Your task to perform on an android device: Add "razer nari" to the cart on bestbuy, then select checkout. Image 0: 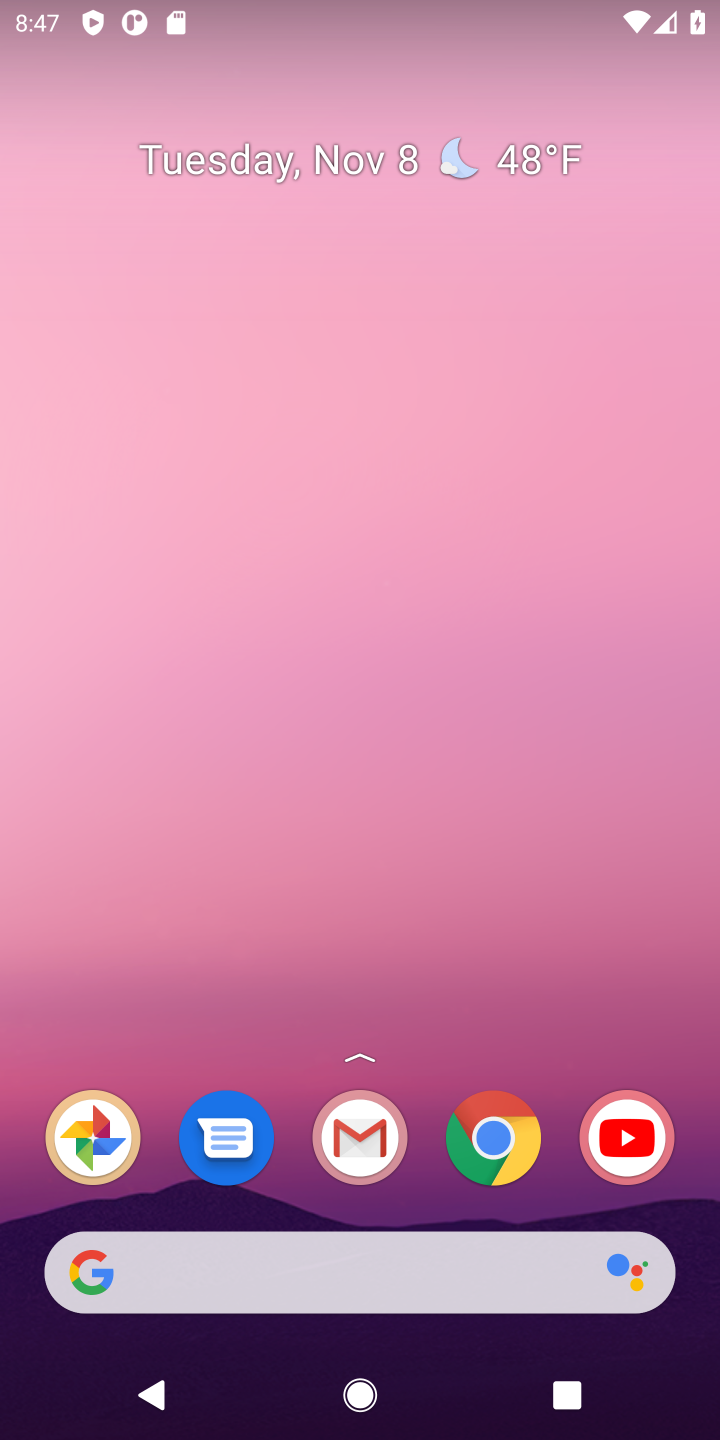
Step 0: click (497, 1150)
Your task to perform on an android device: Add "razer nari" to the cart on bestbuy, then select checkout. Image 1: 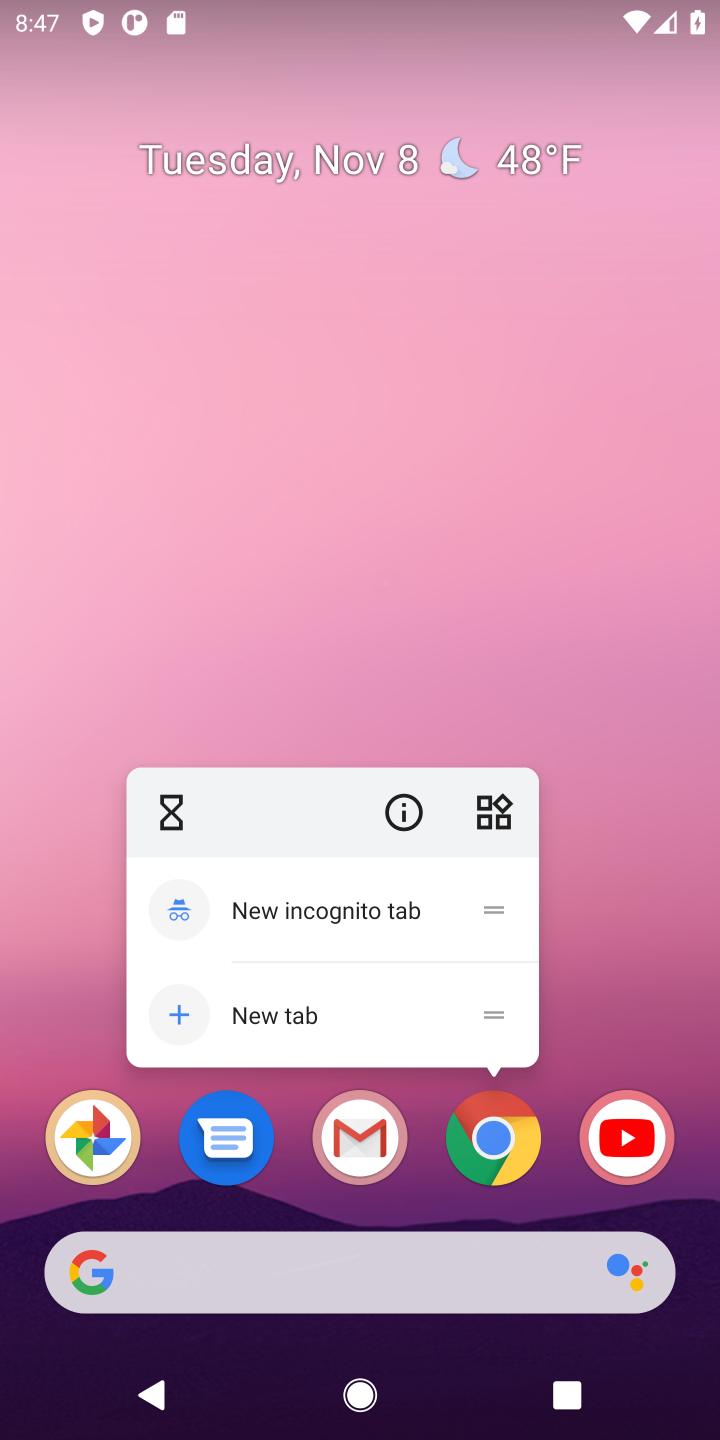
Step 1: click (497, 1152)
Your task to perform on an android device: Add "razer nari" to the cart on bestbuy, then select checkout. Image 2: 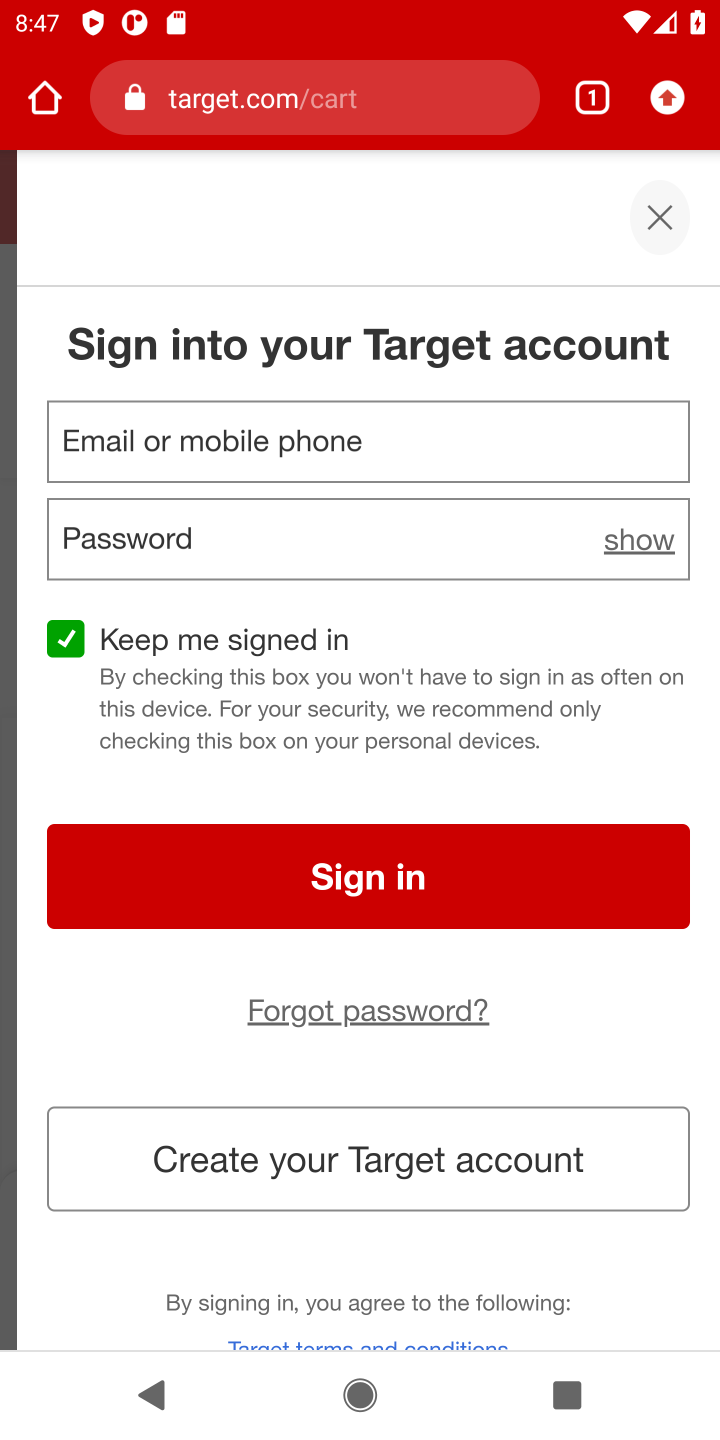
Step 2: click (653, 207)
Your task to perform on an android device: Add "razer nari" to the cart on bestbuy, then select checkout. Image 3: 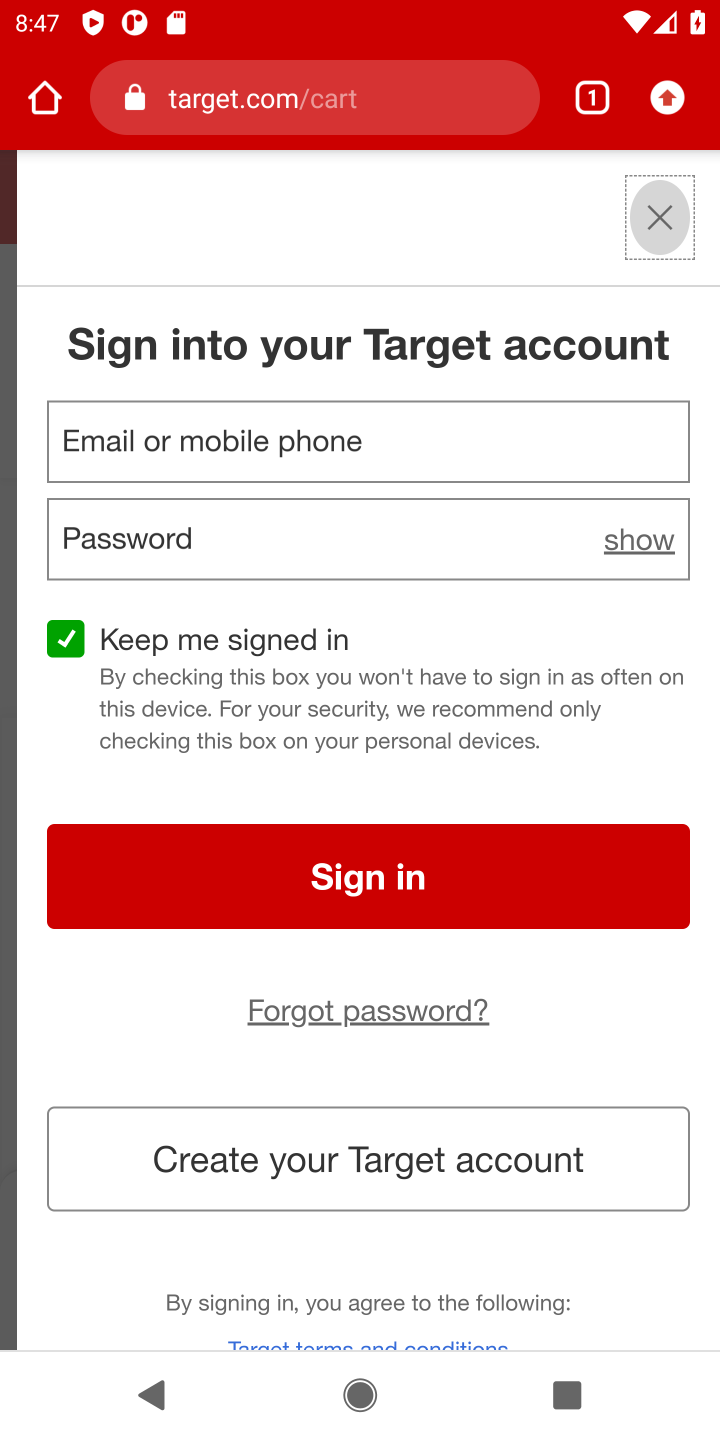
Step 3: click (654, 207)
Your task to perform on an android device: Add "razer nari" to the cart on bestbuy, then select checkout. Image 4: 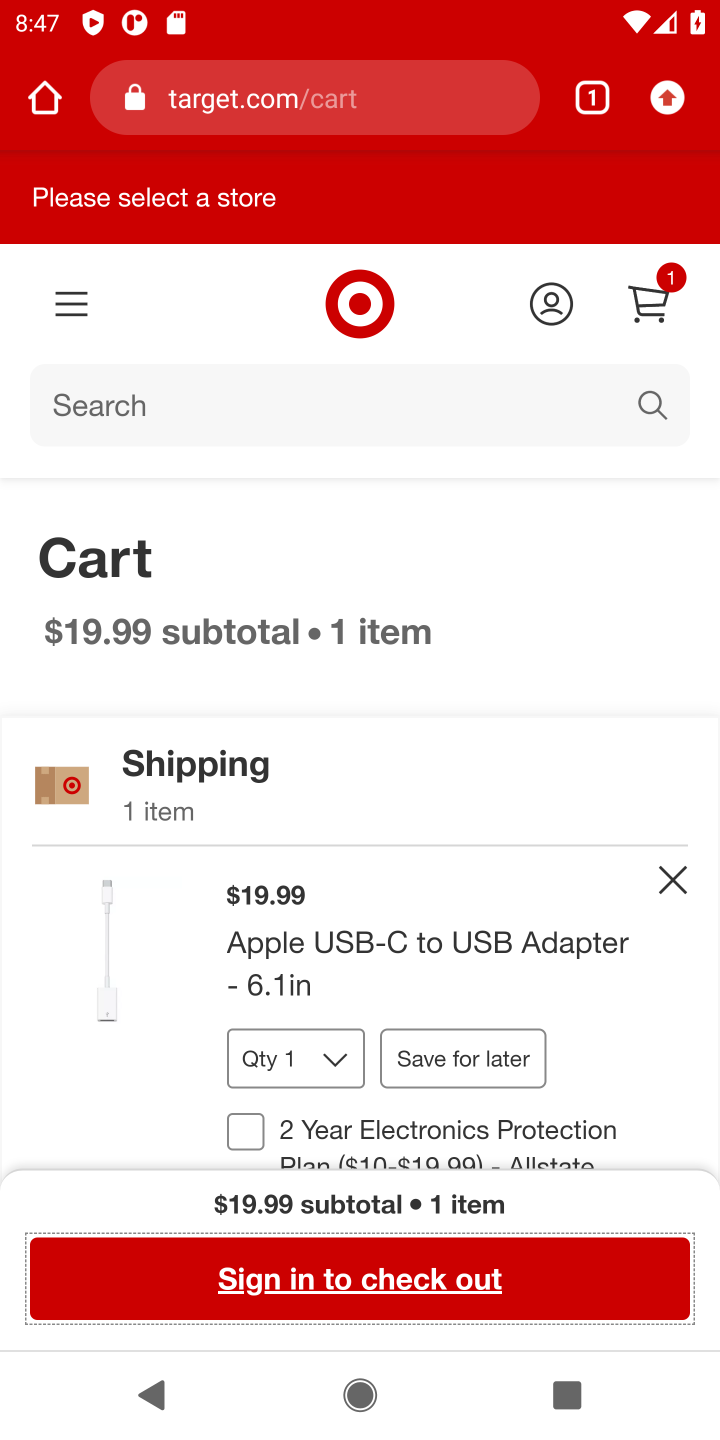
Step 4: click (366, 93)
Your task to perform on an android device: Add "razer nari" to the cart on bestbuy, then select checkout. Image 5: 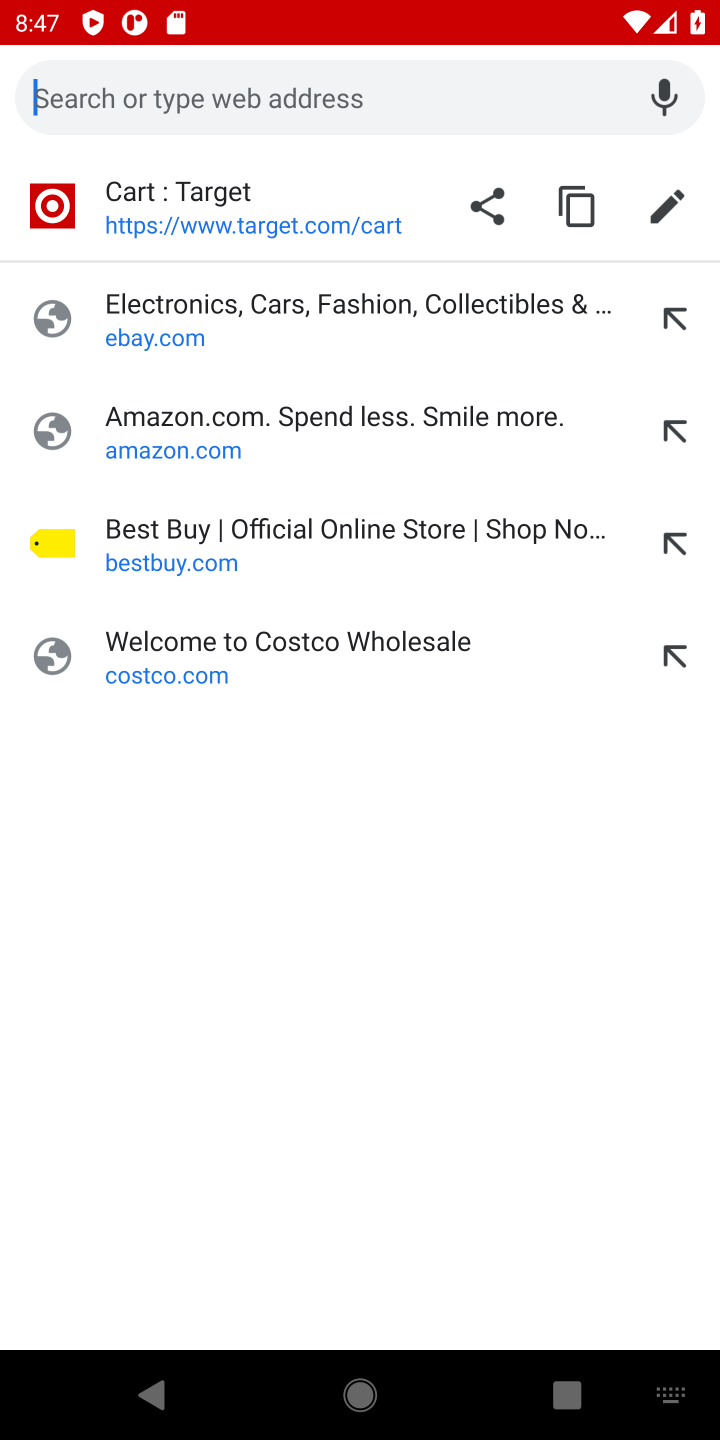
Step 5: click (167, 548)
Your task to perform on an android device: Add "razer nari" to the cart on bestbuy, then select checkout. Image 6: 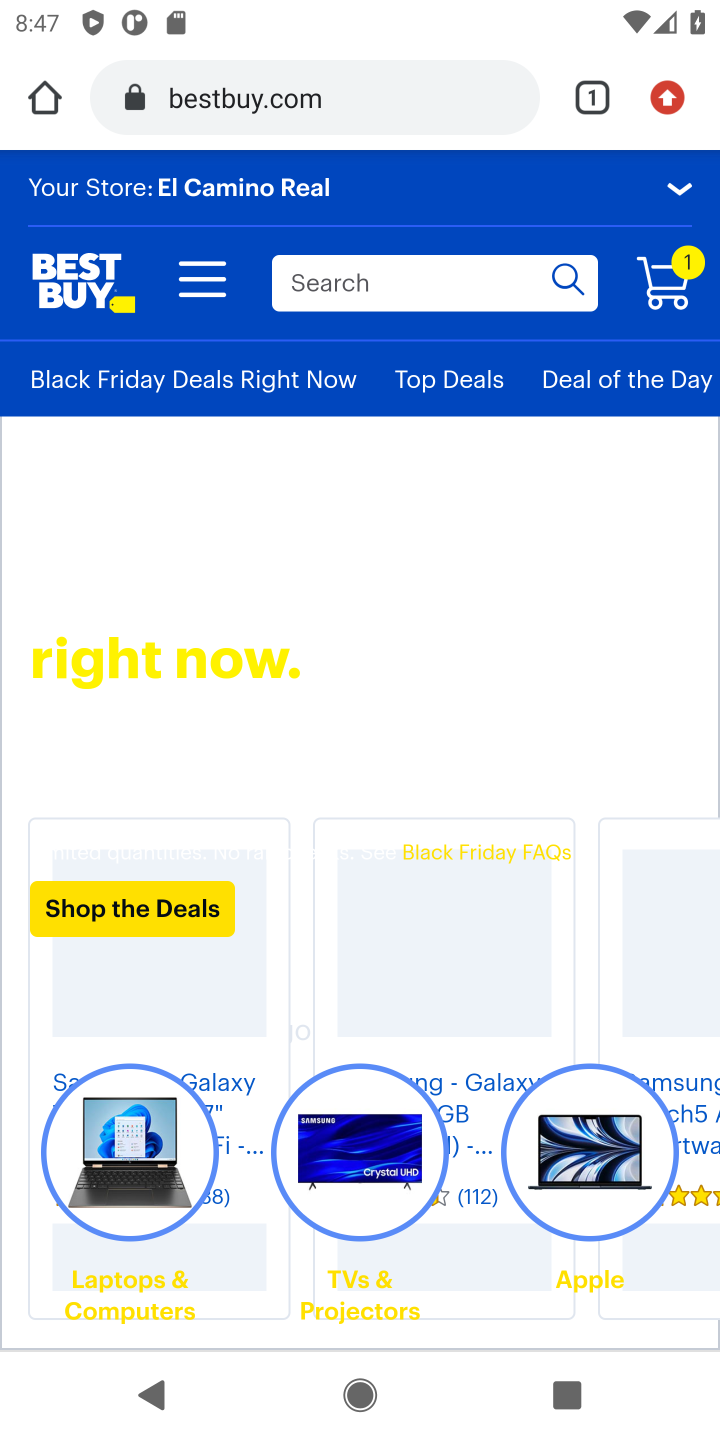
Step 6: click (384, 269)
Your task to perform on an android device: Add "razer nari" to the cart on bestbuy, then select checkout. Image 7: 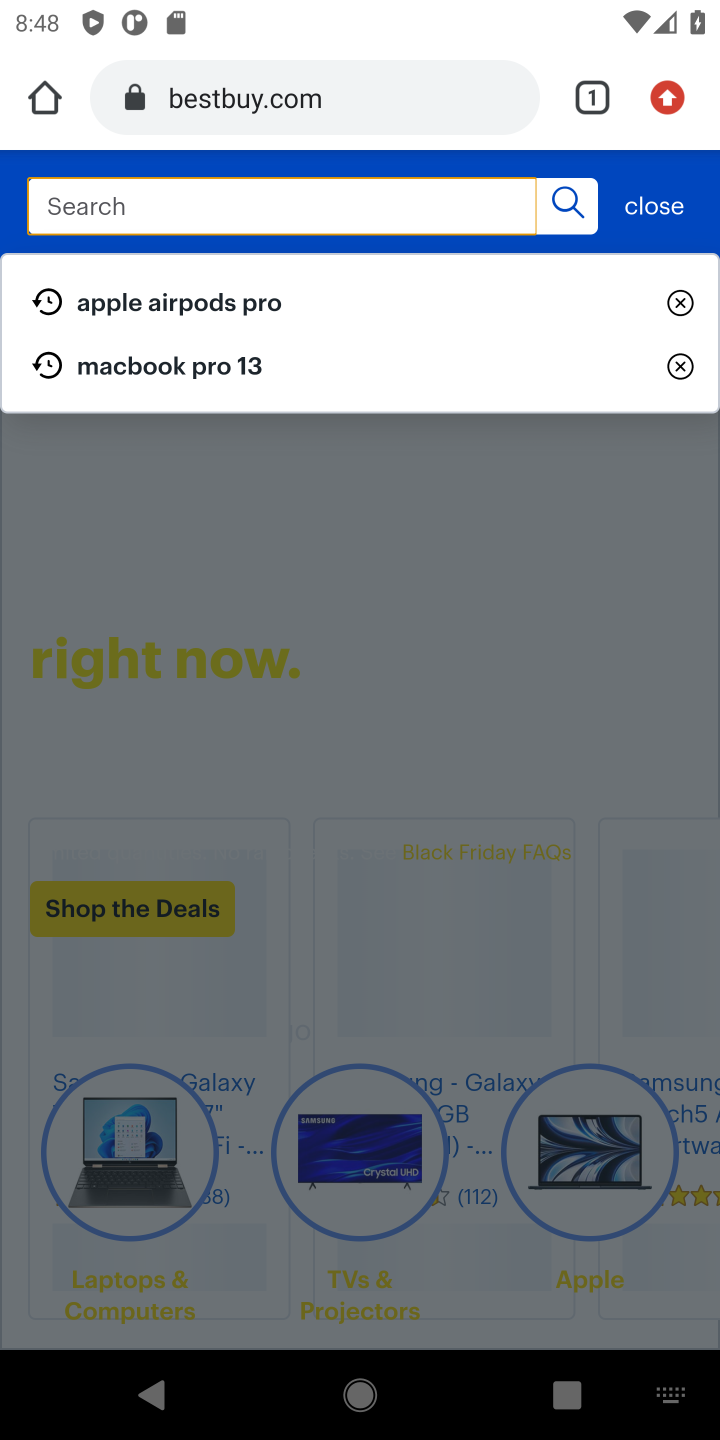
Step 7: type "razer nari"
Your task to perform on an android device: Add "razer nari" to the cart on bestbuy, then select checkout. Image 8: 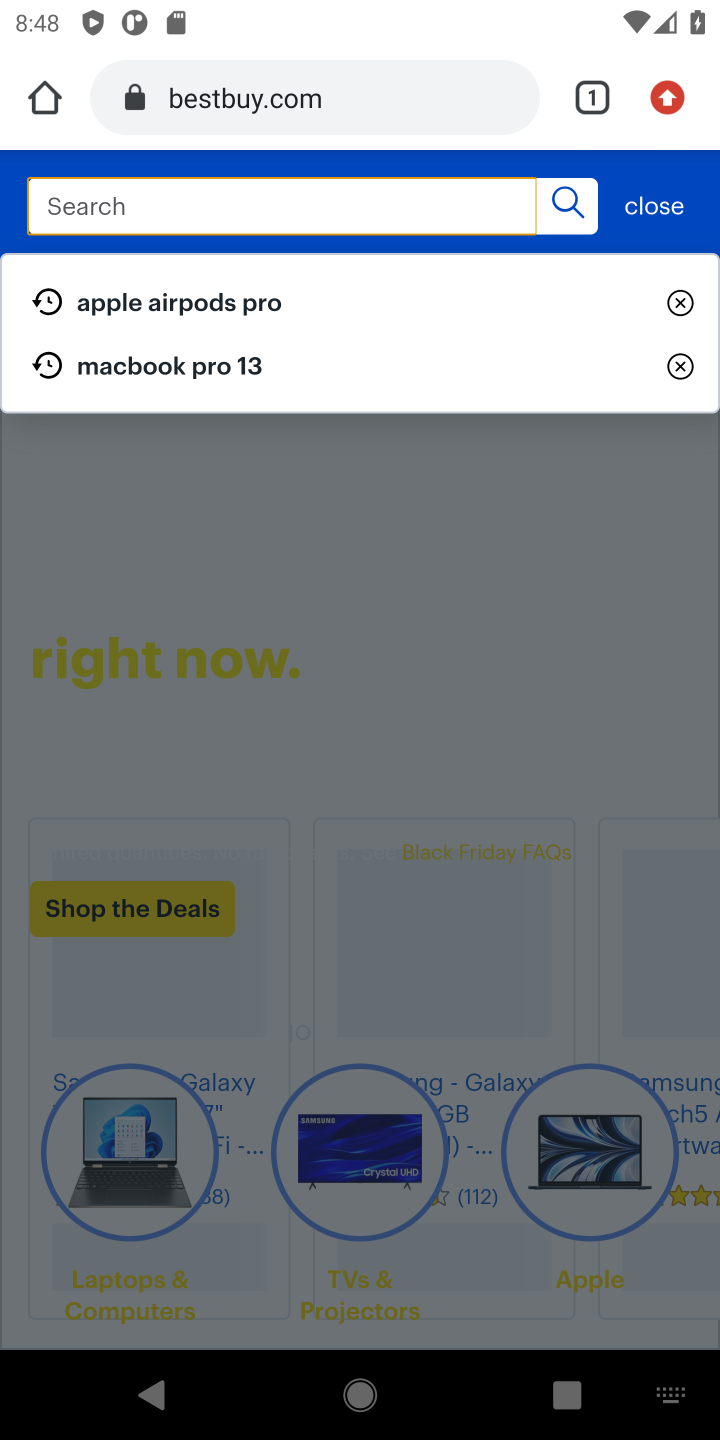
Step 8: press enter
Your task to perform on an android device: Add "razer nari" to the cart on bestbuy, then select checkout. Image 9: 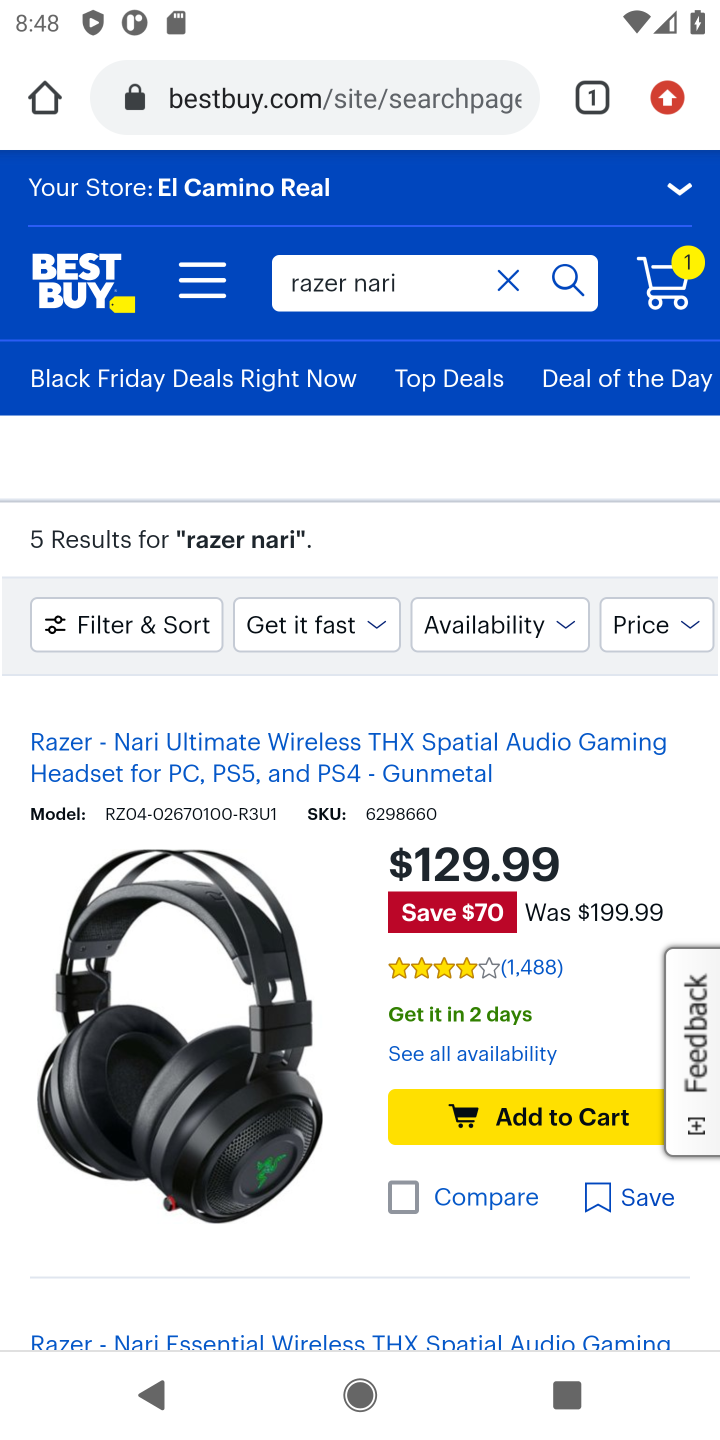
Step 9: click (522, 1097)
Your task to perform on an android device: Add "razer nari" to the cart on bestbuy, then select checkout. Image 10: 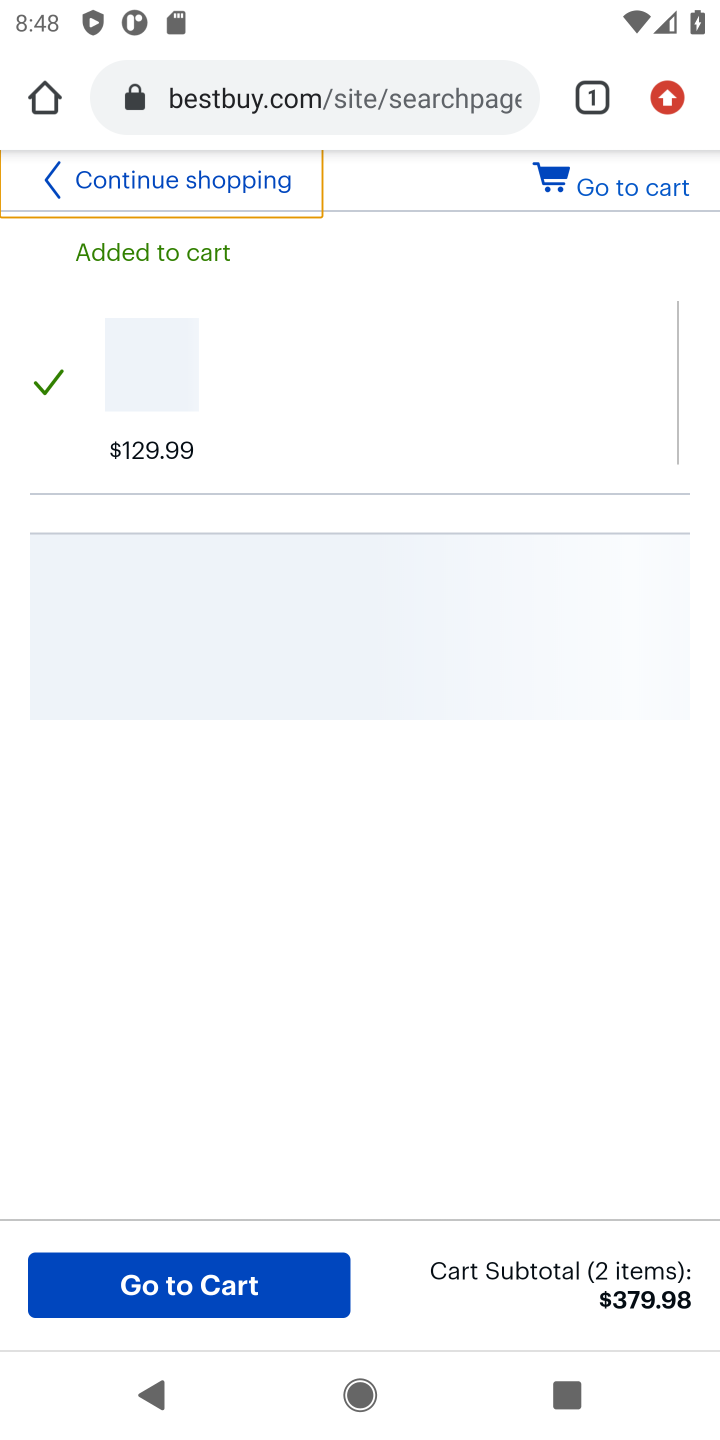
Step 10: click (652, 174)
Your task to perform on an android device: Add "razer nari" to the cart on bestbuy, then select checkout. Image 11: 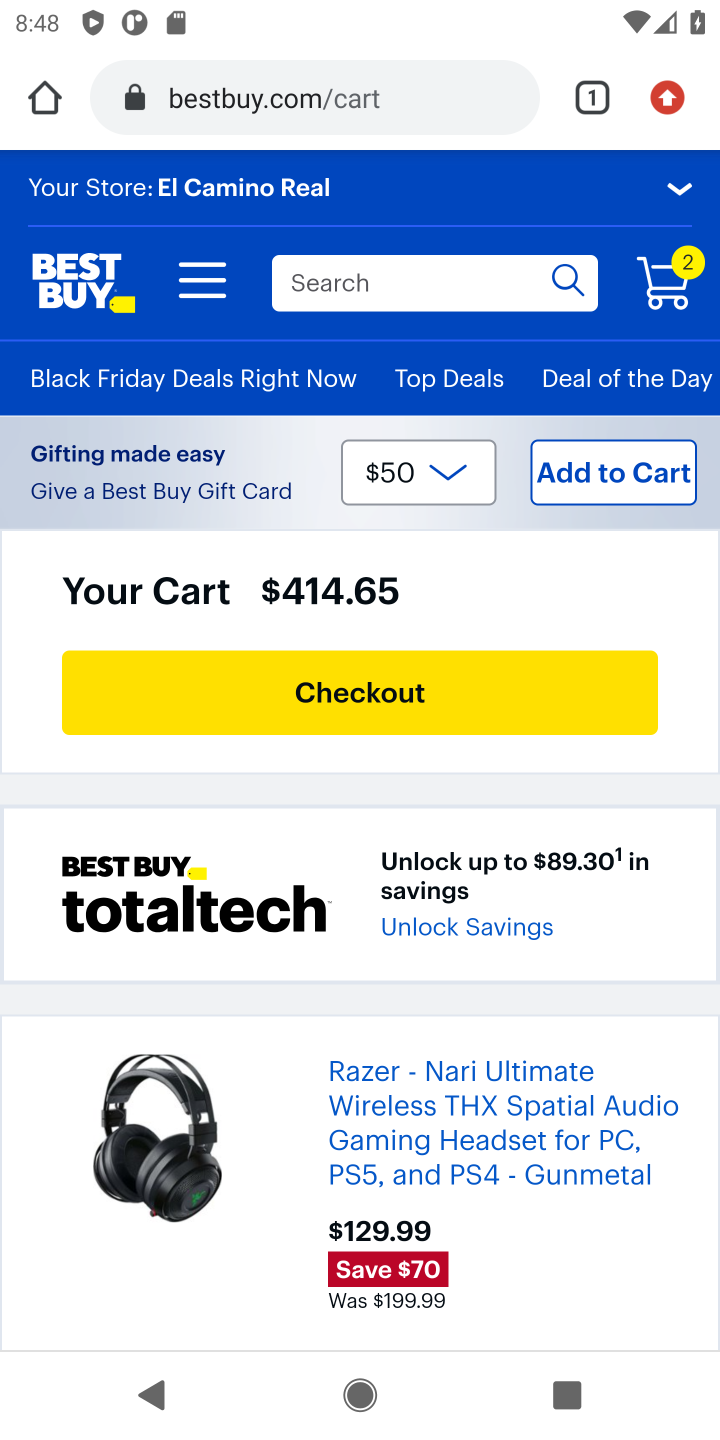
Step 11: drag from (227, 1274) to (626, 227)
Your task to perform on an android device: Add "razer nari" to the cart on bestbuy, then select checkout. Image 12: 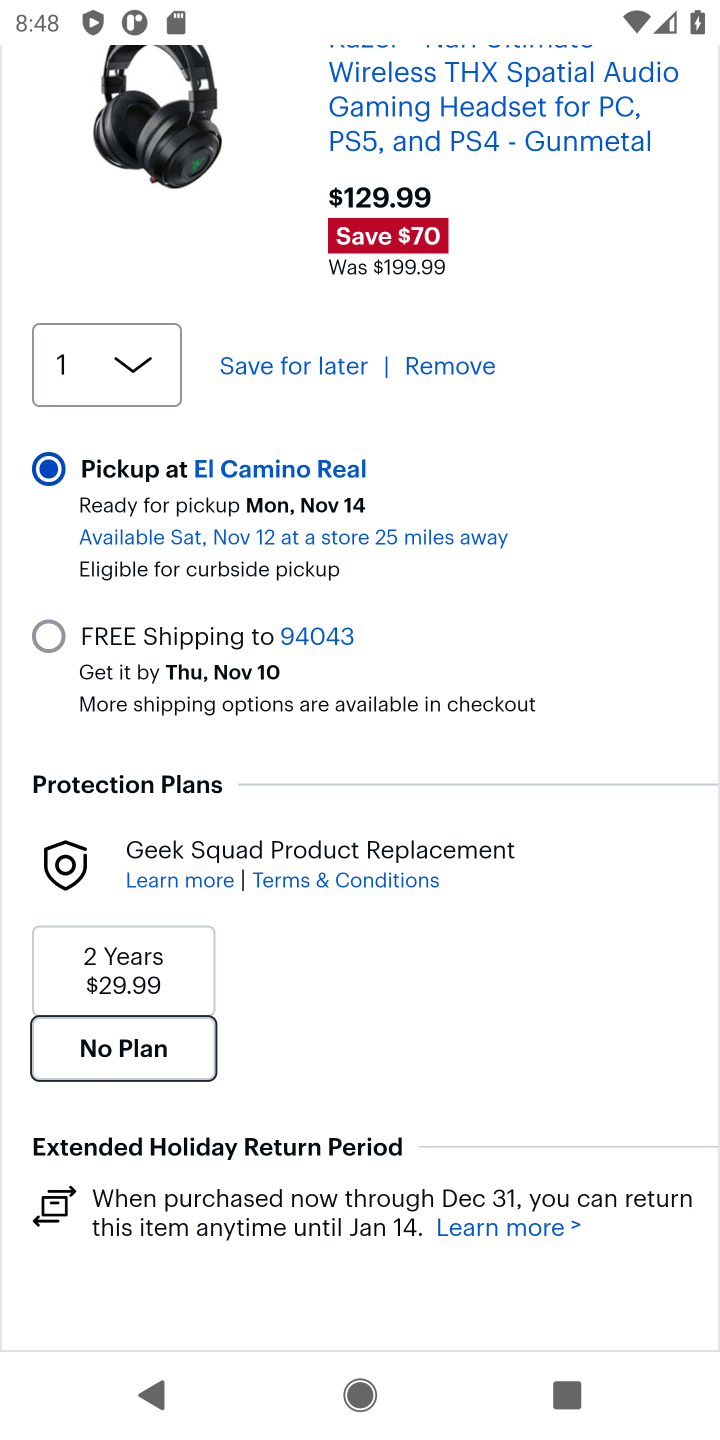
Step 12: drag from (352, 1143) to (485, 657)
Your task to perform on an android device: Add "razer nari" to the cart on bestbuy, then select checkout. Image 13: 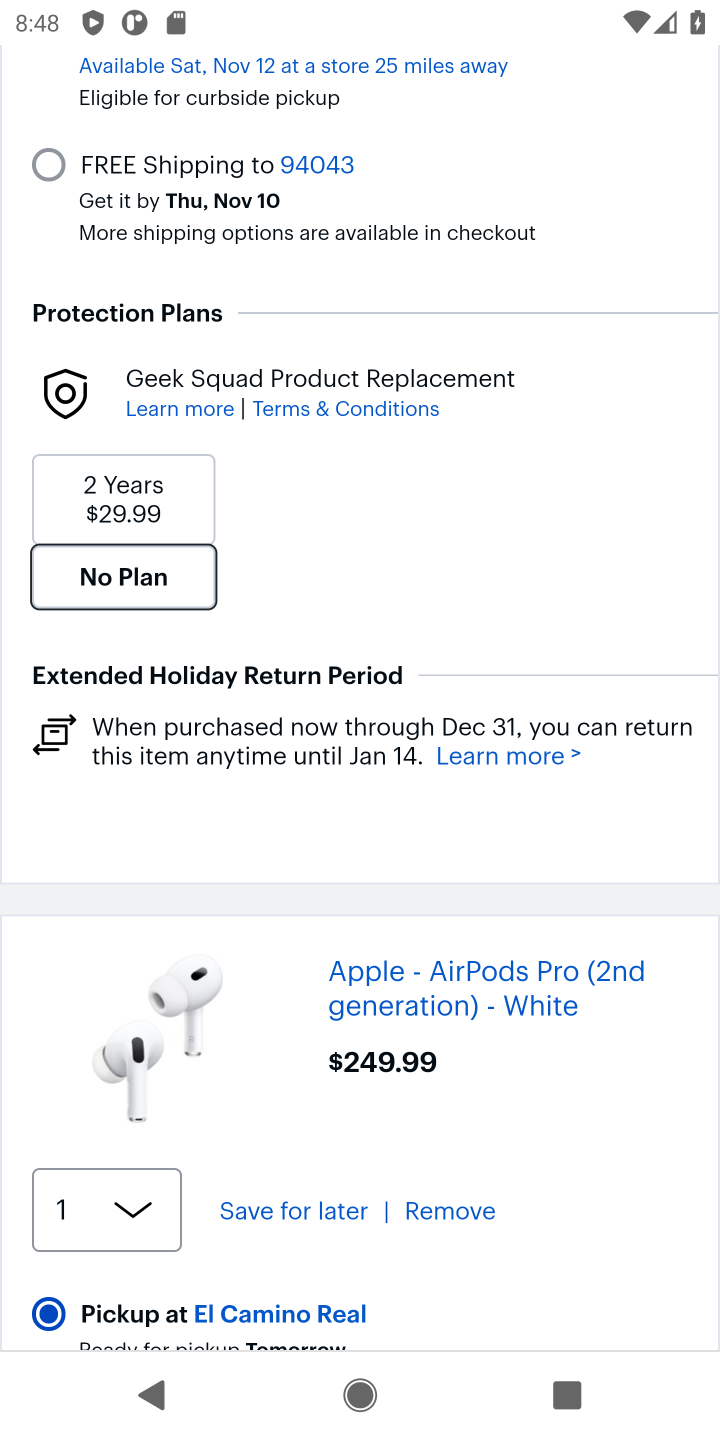
Step 13: click (429, 1209)
Your task to perform on an android device: Add "razer nari" to the cart on bestbuy, then select checkout. Image 14: 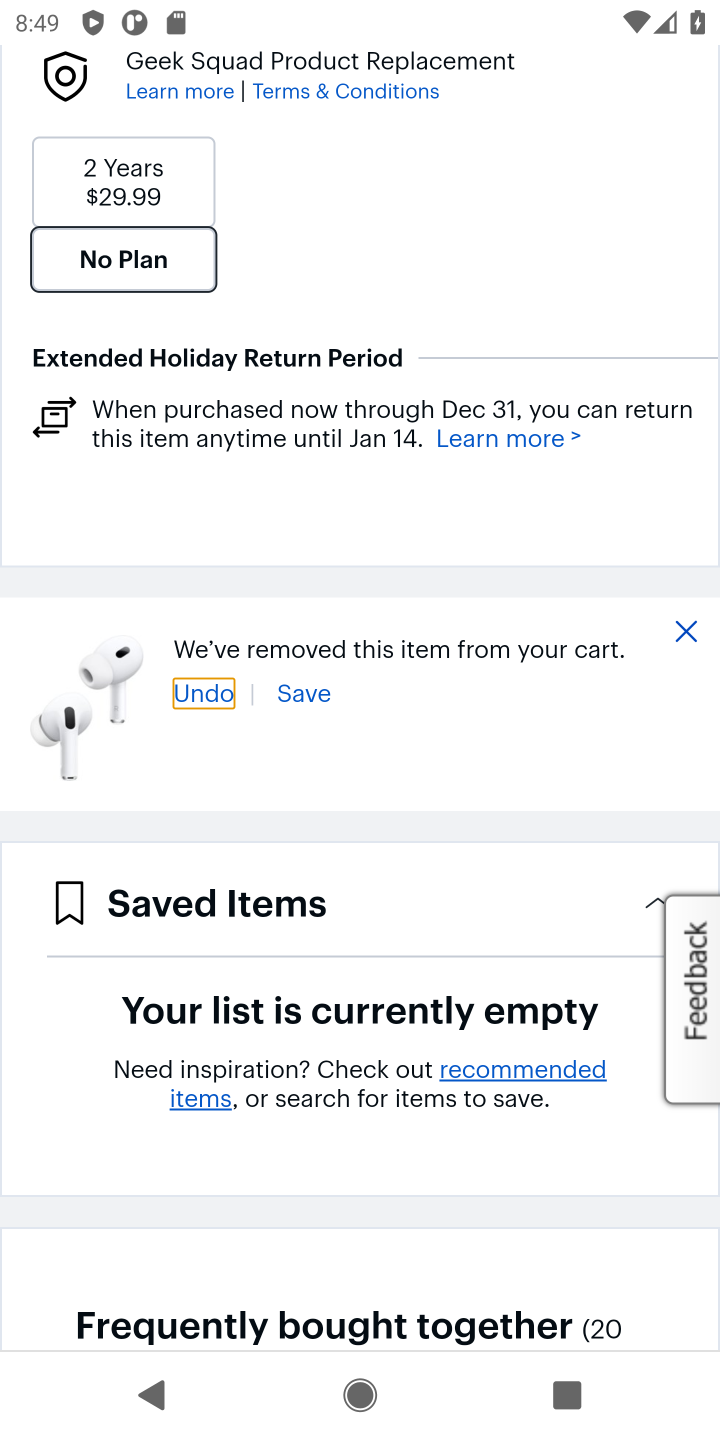
Step 14: drag from (516, 196) to (543, 1162)
Your task to perform on an android device: Add "razer nari" to the cart on bestbuy, then select checkout. Image 15: 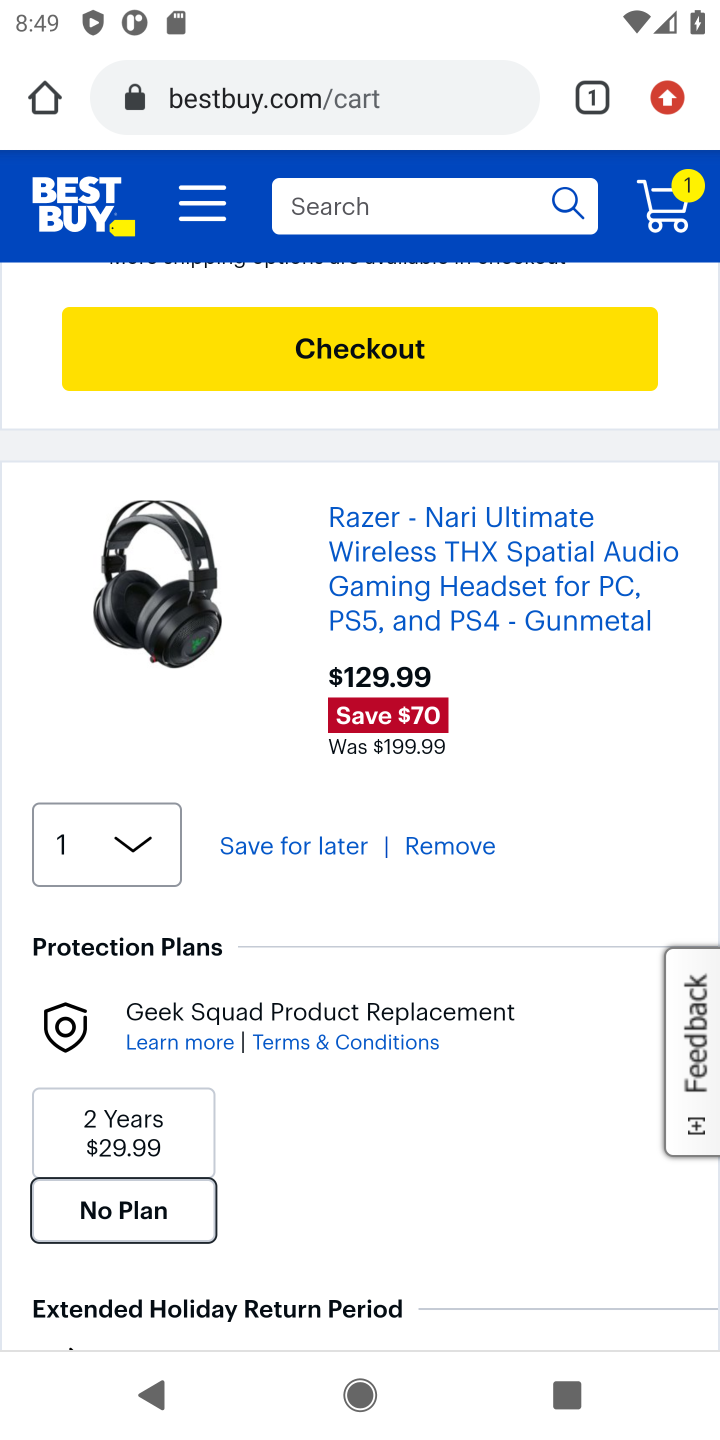
Step 15: drag from (345, 1185) to (494, 861)
Your task to perform on an android device: Add "razer nari" to the cart on bestbuy, then select checkout. Image 16: 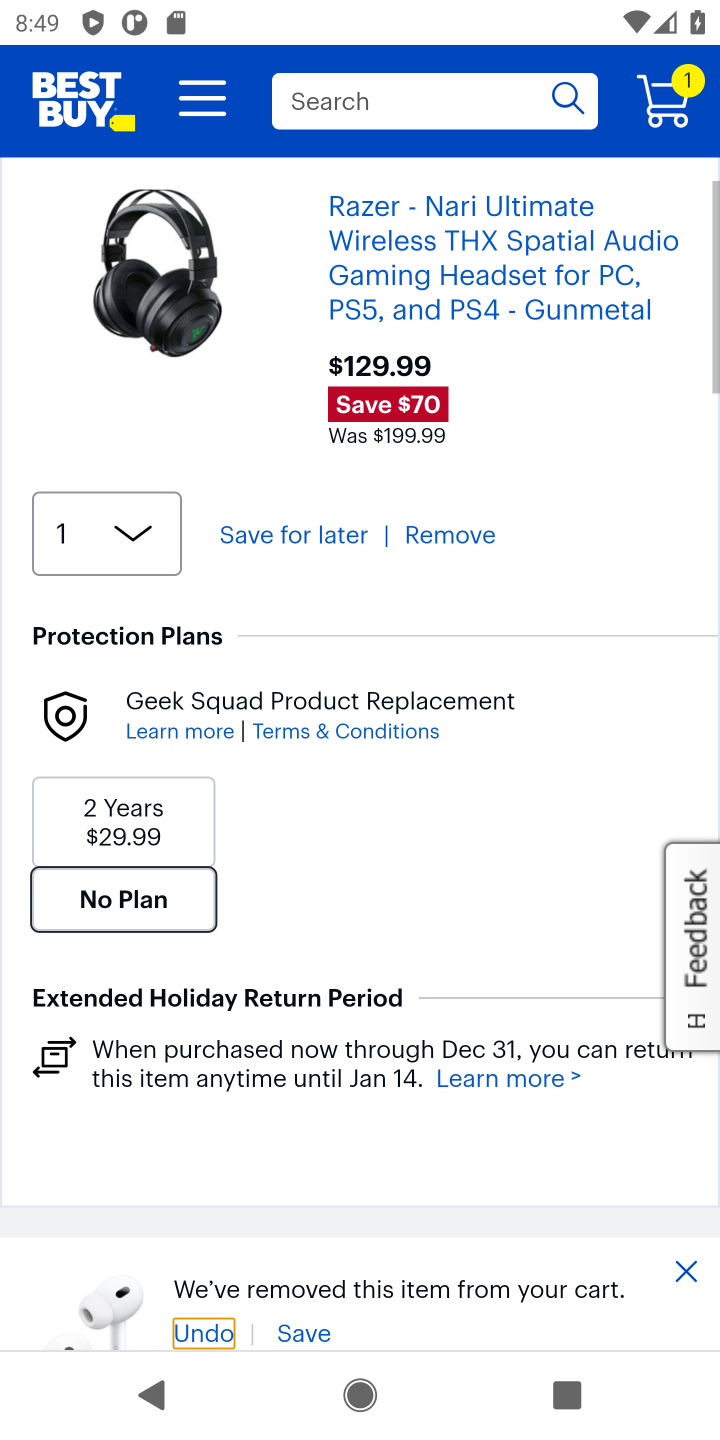
Step 16: drag from (489, 901) to (495, 1128)
Your task to perform on an android device: Add "razer nari" to the cart on bestbuy, then select checkout. Image 17: 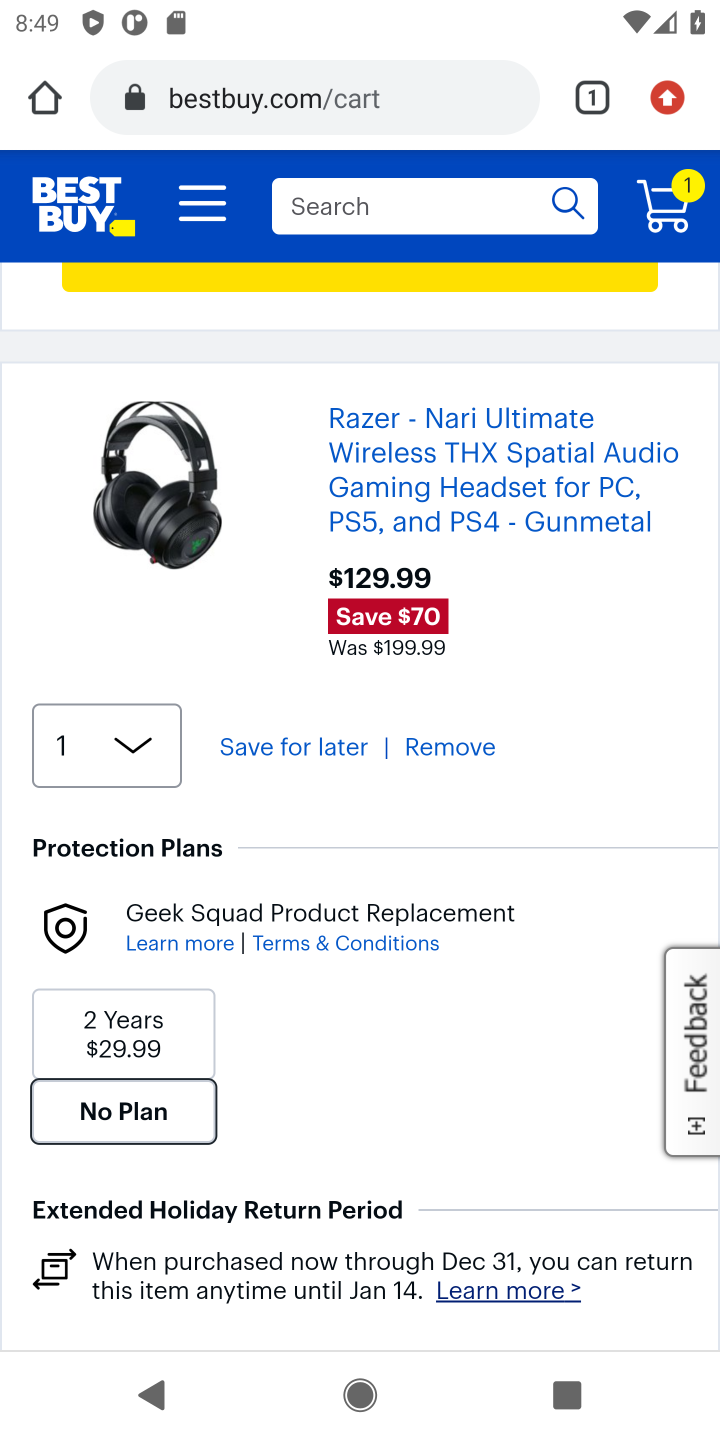
Step 17: drag from (599, 936) to (595, 1194)
Your task to perform on an android device: Add "razer nari" to the cart on bestbuy, then select checkout. Image 18: 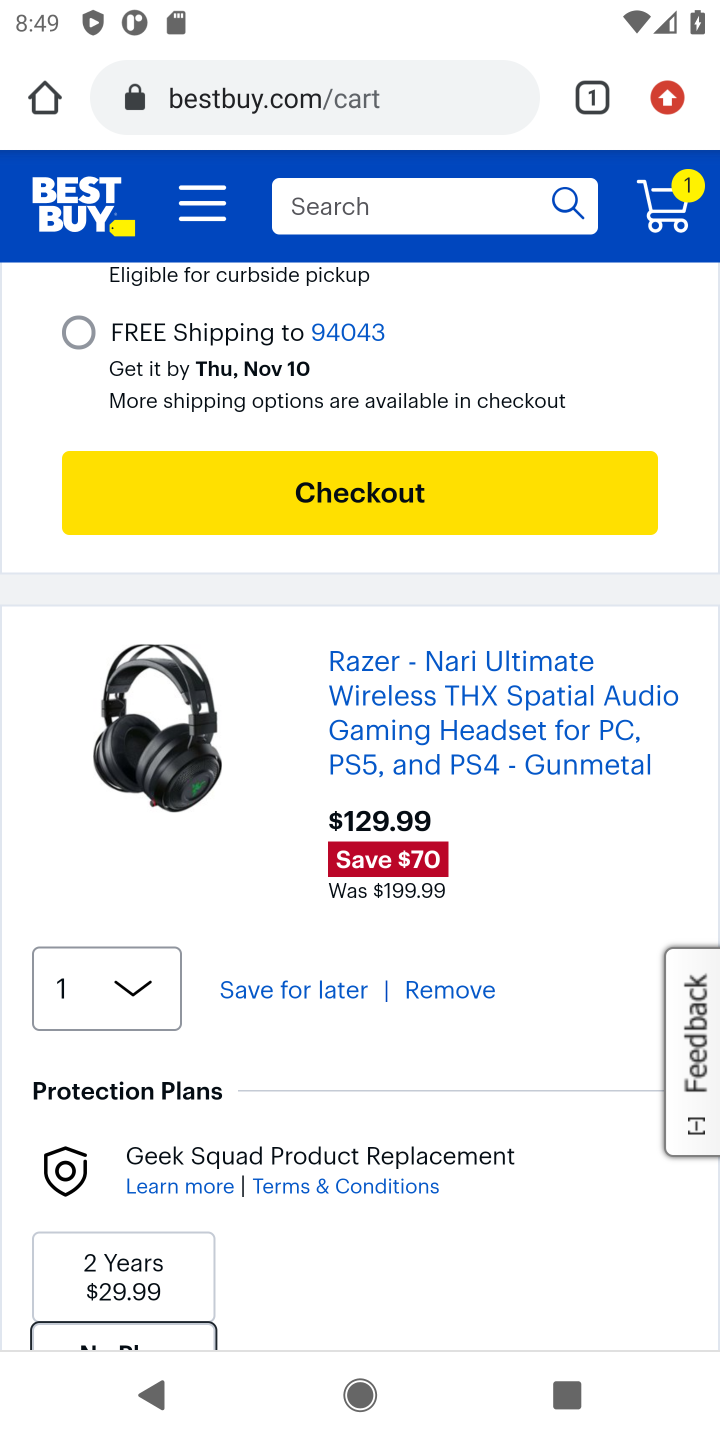
Step 18: click (391, 463)
Your task to perform on an android device: Add "razer nari" to the cart on bestbuy, then select checkout. Image 19: 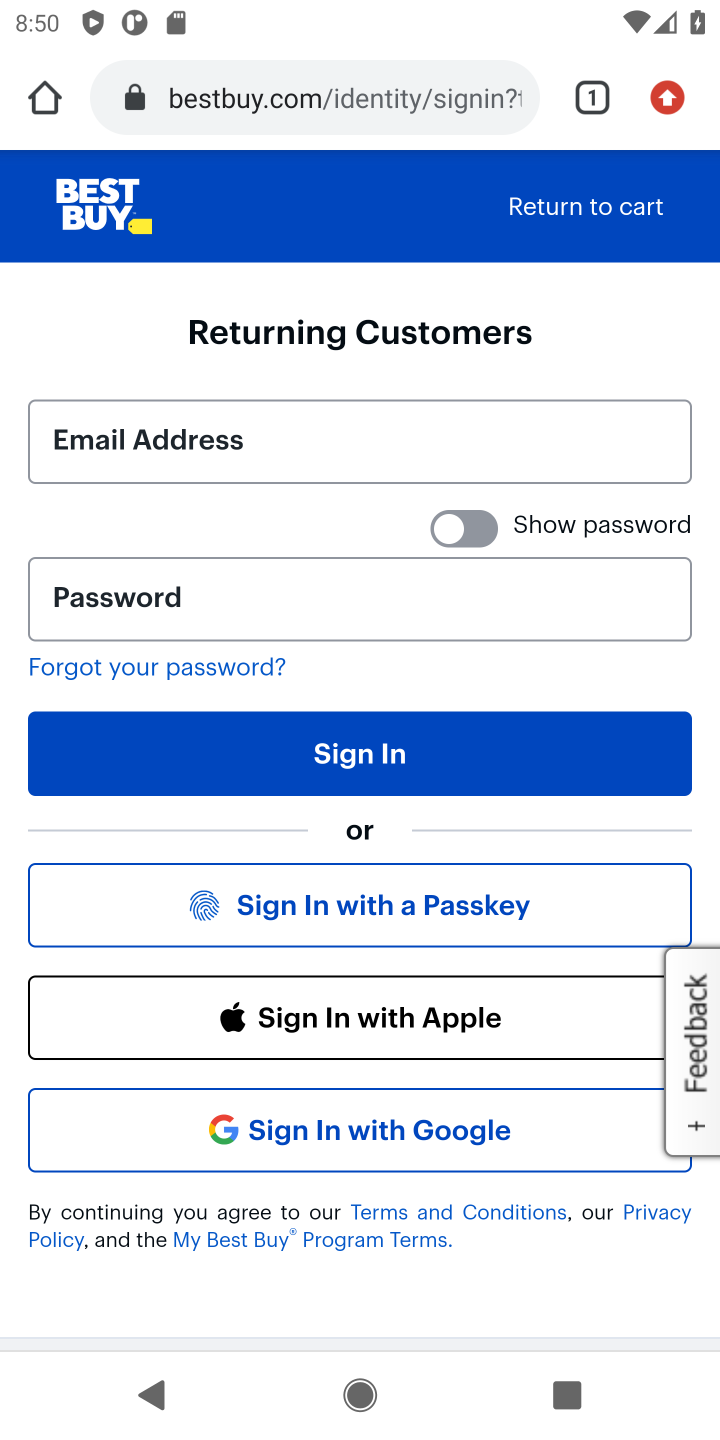
Step 19: task complete